Your task to perform on an android device: change the upload size in google photos Image 0: 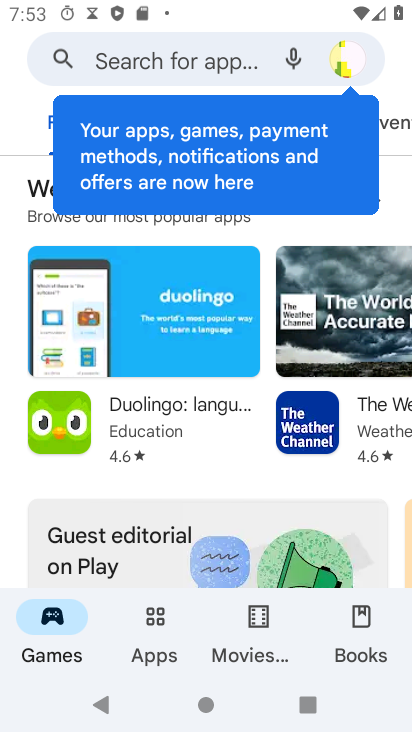
Step 0: press home button
Your task to perform on an android device: change the upload size in google photos Image 1: 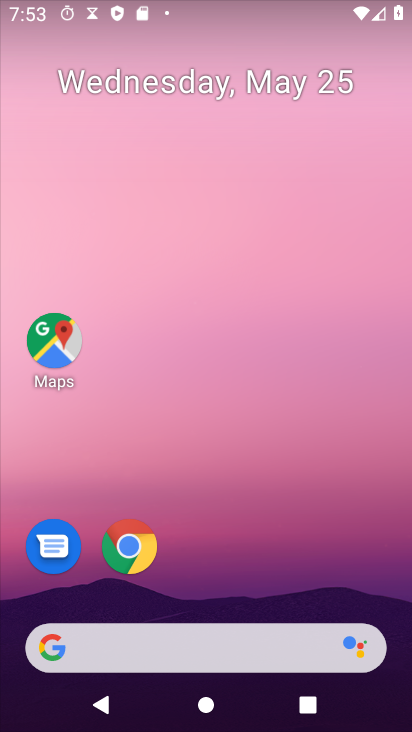
Step 1: drag from (212, 447) to (248, 37)
Your task to perform on an android device: change the upload size in google photos Image 2: 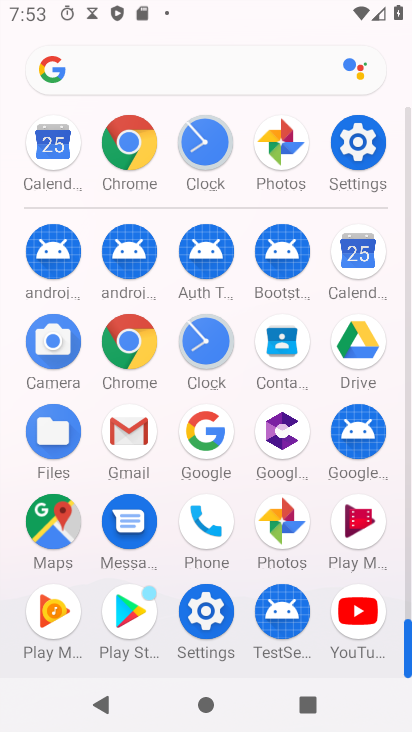
Step 2: click (271, 523)
Your task to perform on an android device: change the upload size in google photos Image 3: 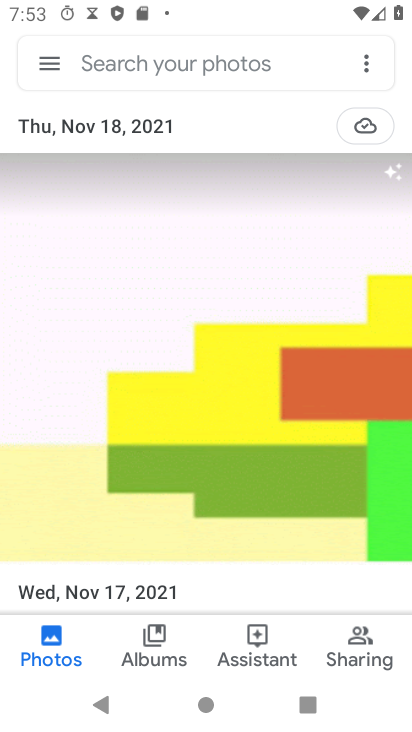
Step 3: click (44, 76)
Your task to perform on an android device: change the upload size in google photos Image 4: 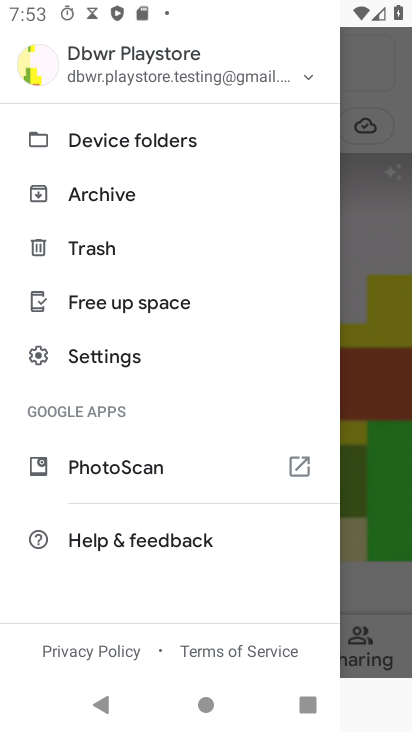
Step 4: click (100, 354)
Your task to perform on an android device: change the upload size in google photos Image 5: 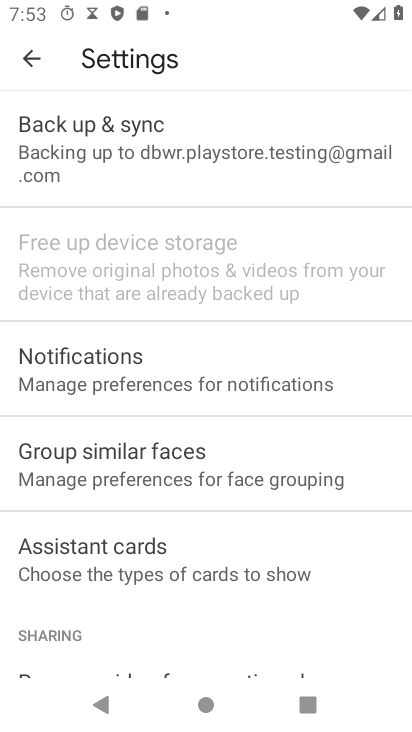
Step 5: click (150, 160)
Your task to perform on an android device: change the upload size in google photos Image 6: 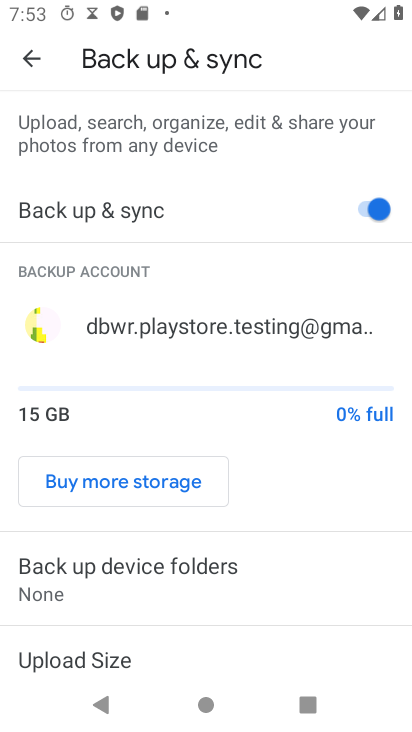
Step 6: click (123, 661)
Your task to perform on an android device: change the upload size in google photos Image 7: 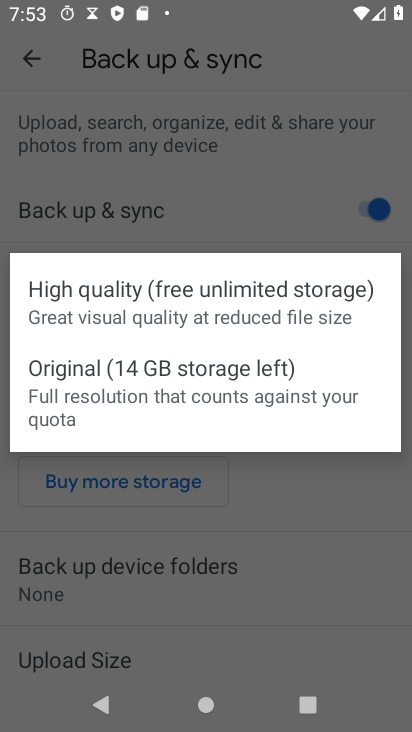
Step 7: click (146, 403)
Your task to perform on an android device: change the upload size in google photos Image 8: 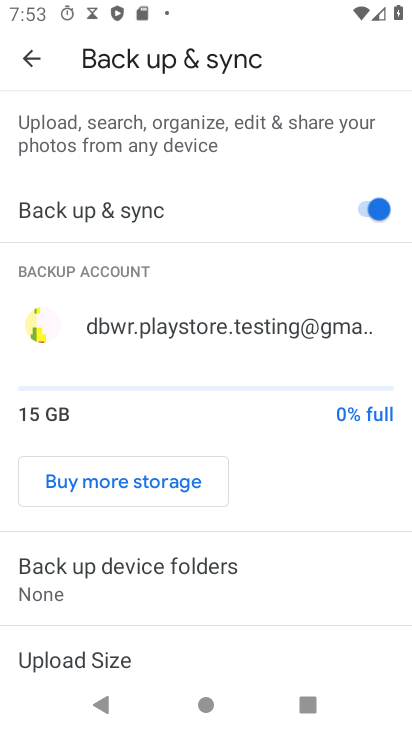
Step 8: task complete